Your task to perform on an android device: What time is it in Paris? Image 0: 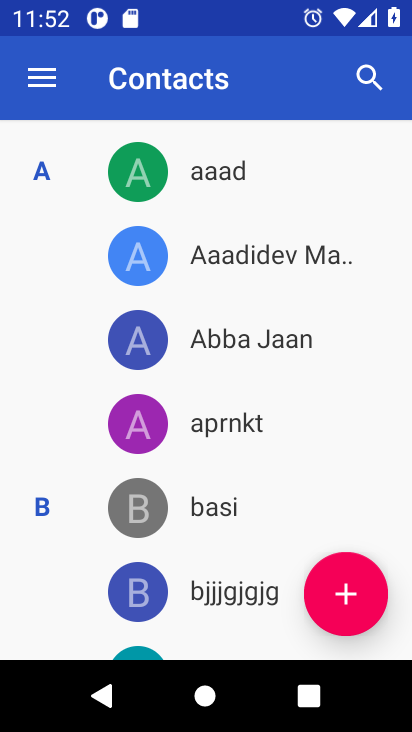
Step 0: press home button
Your task to perform on an android device: What time is it in Paris? Image 1: 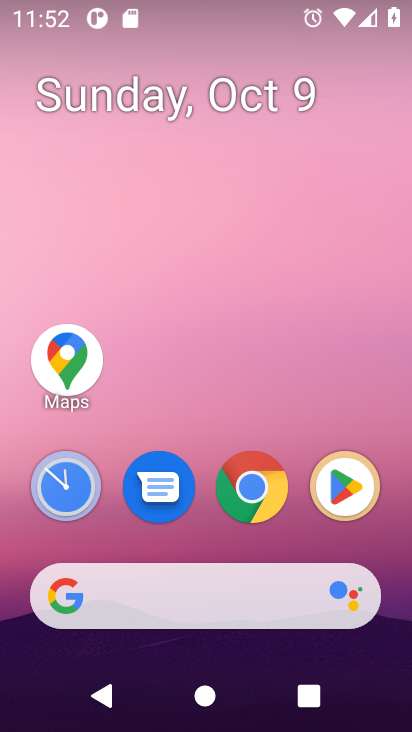
Step 1: drag from (229, 550) to (233, 100)
Your task to perform on an android device: What time is it in Paris? Image 2: 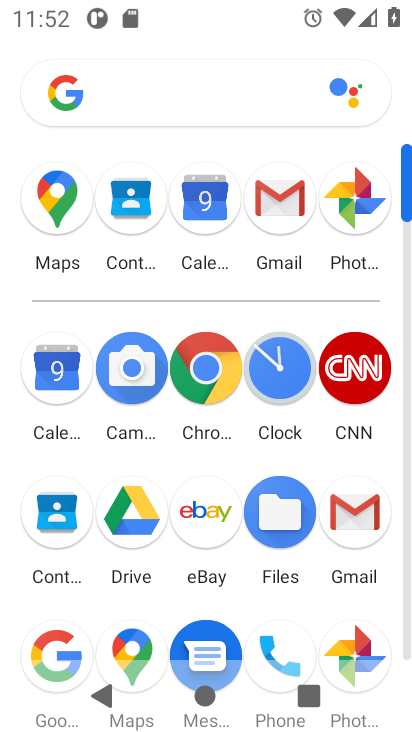
Step 2: drag from (269, 366) to (257, 215)
Your task to perform on an android device: What time is it in Paris? Image 3: 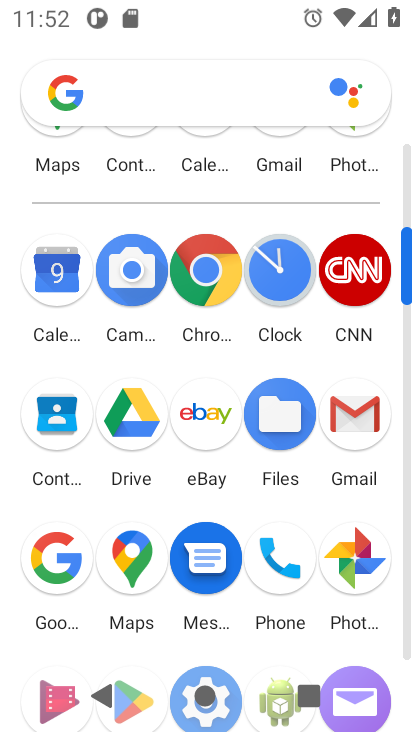
Step 3: click (204, 261)
Your task to perform on an android device: What time is it in Paris? Image 4: 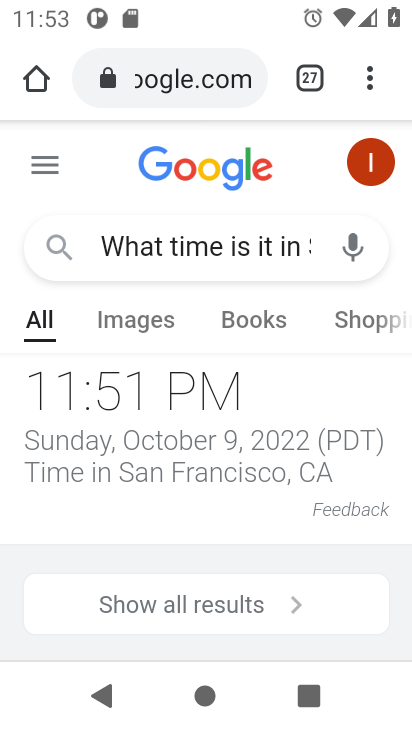
Step 4: click (219, 256)
Your task to perform on an android device: What time is it in Paris? Image 5: 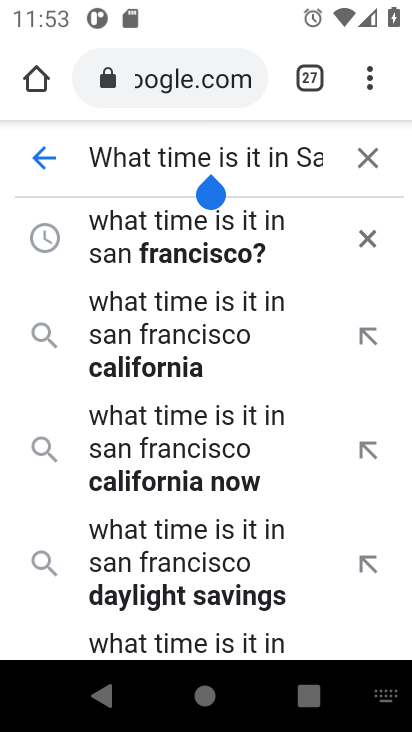
Step 5: click (372, 156)
Your task to perform on an android device: What time is it in Paris? Image 6: 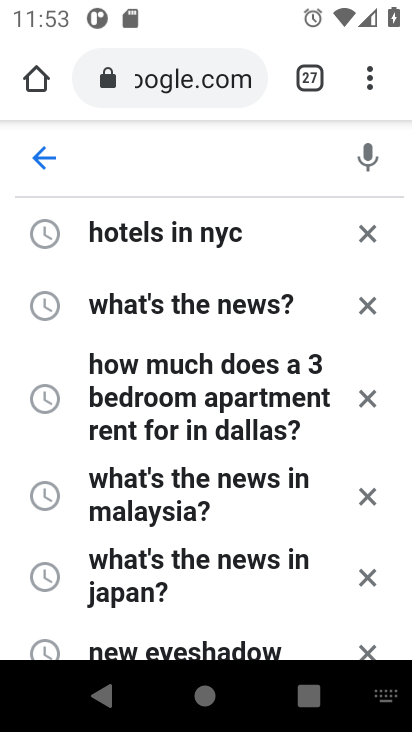
Step 6: type "What time is it in Paris?"
Your task to perform on an android device: What time is it in Paris? Image 7: 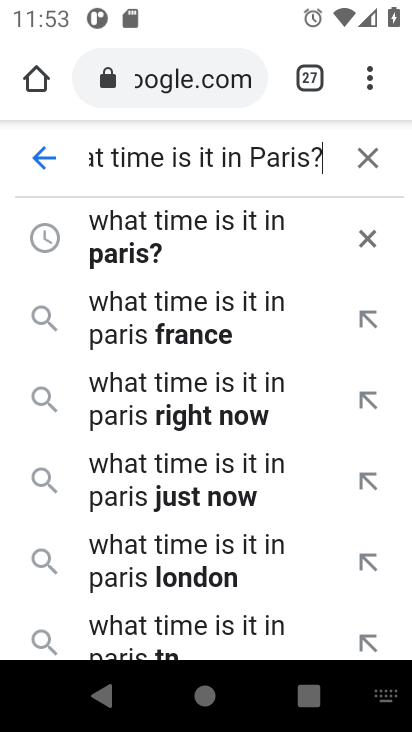
Step 7: type ""
Your task to perform on an android device: What time is it in Paris? Image 8: 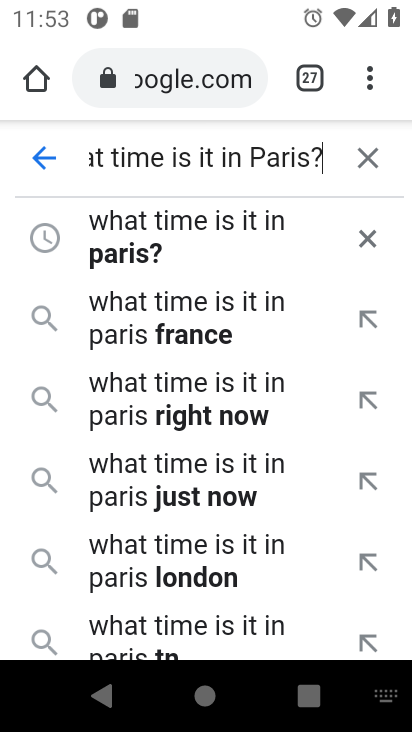
Step 8: click (218, 225)
Your task to perform on an android device: What time is it in Paris? Image 9: 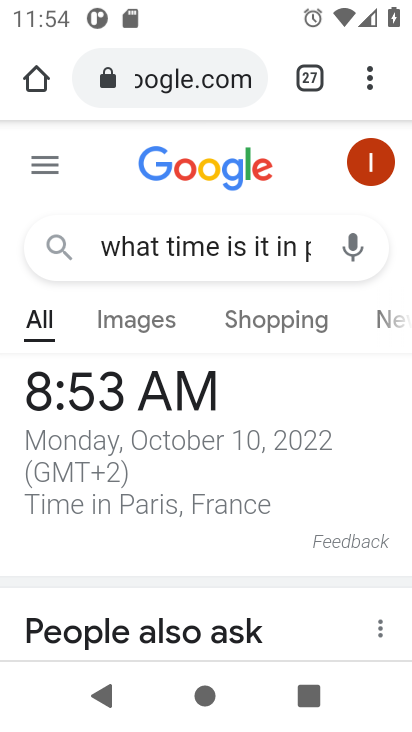
Step 9: task complete